Your task to perform on an android device: change the clock display to digital Image 0: 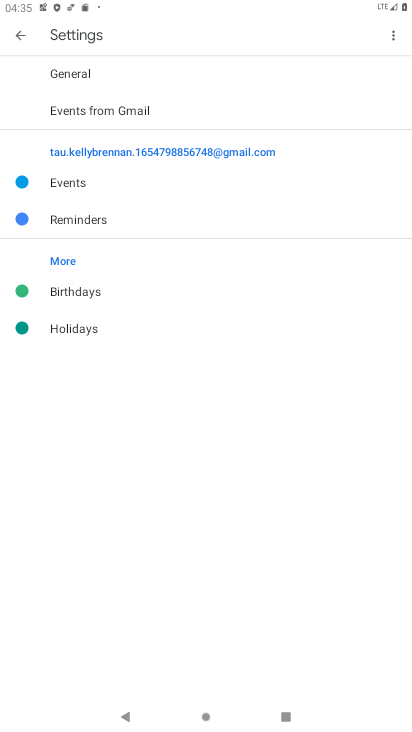
Step 0: press home button
Your task to perform on an android device: change the clock display to digital Image 1: 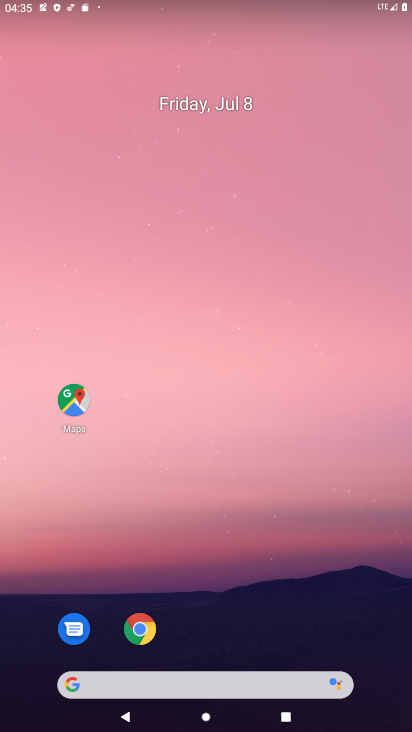
Step 1: drag from (242, 714) to (234, 88)
Your task to perform on an android device: change the clock display to digital Image 2: 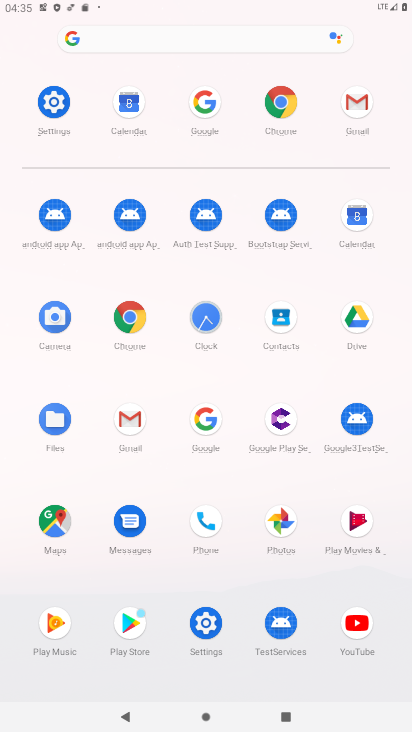
Step 2: click (205, 320)
Your task to perform on an android device: change the clock display to digital Image 3: 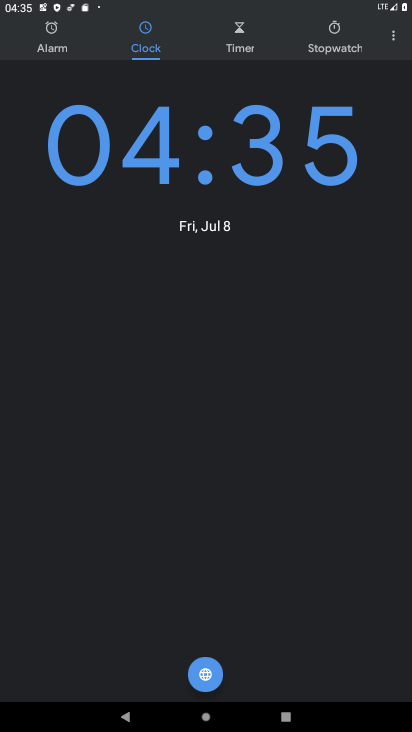
Step 3: click (394, 43)
Your task to perform on an android device: change the clock display to digital Image 4: 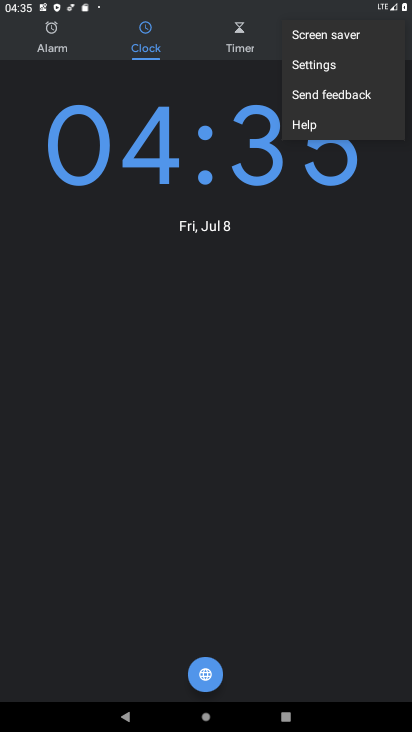
Step 4: click (328, 62)
Your task to perform on an android device: change the clock display to digital Image 5: 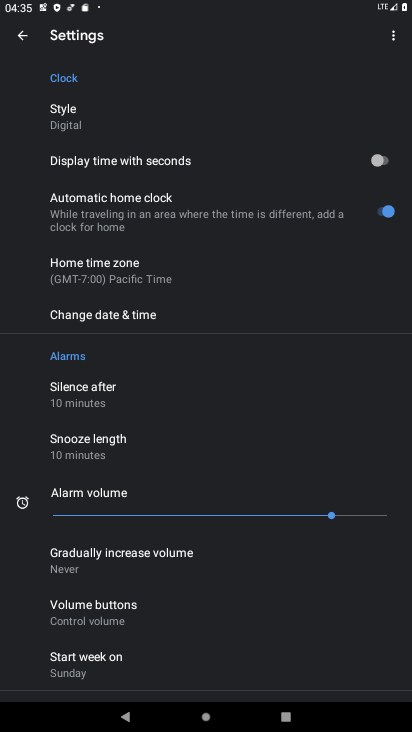
Step 5: task complete